Your task to perform on an android device: Set the phone to "Do not disturb". Image 0: 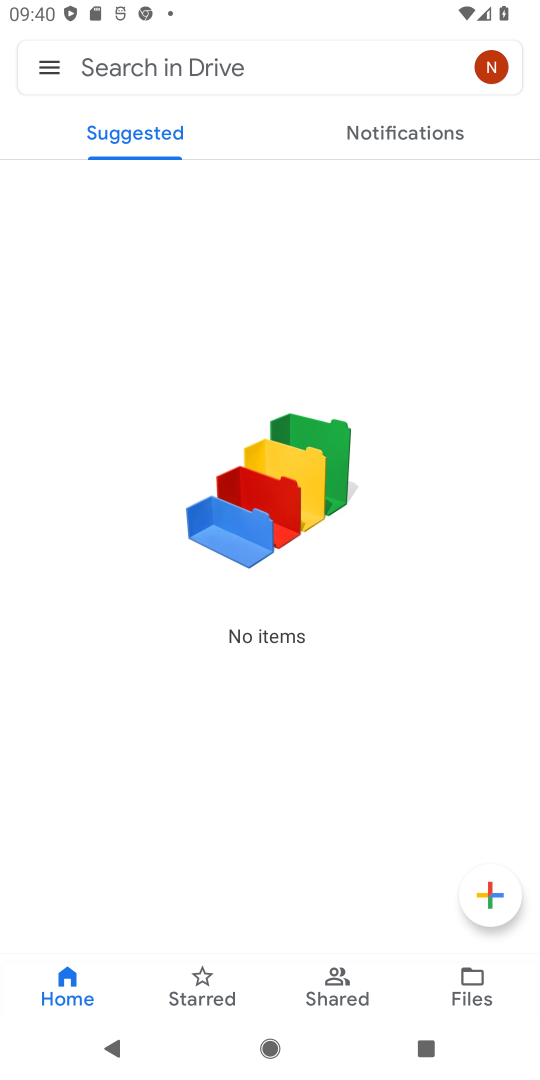
Step 0: press home button
Your task to perform on an android device: Set the phone to "Do not disturb". Image 1: 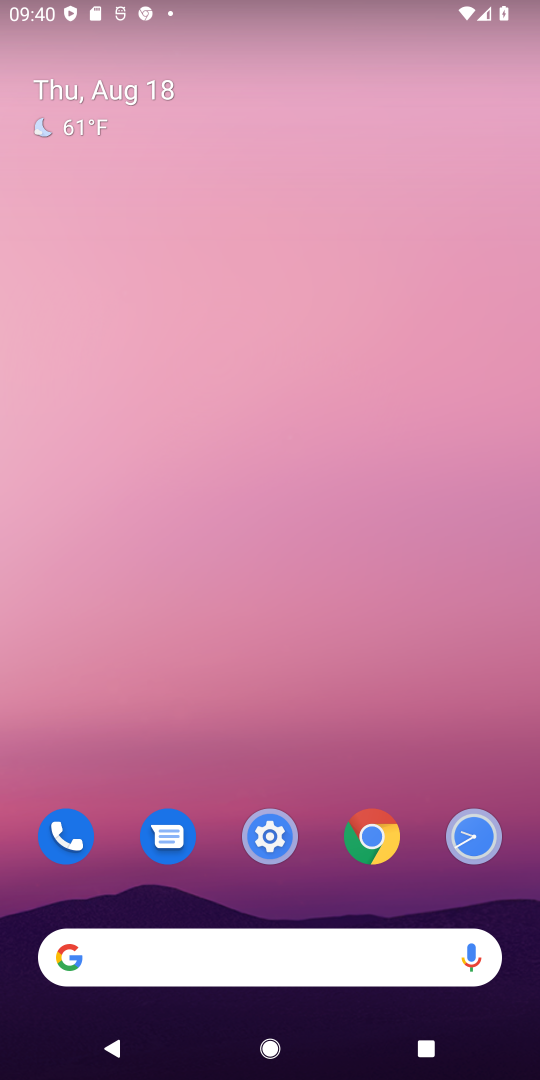
Step 1: drag from (414, 12) to (226, 380)
Your task to perform on an android device: Set the phone to "Do not disturb". Image 2: 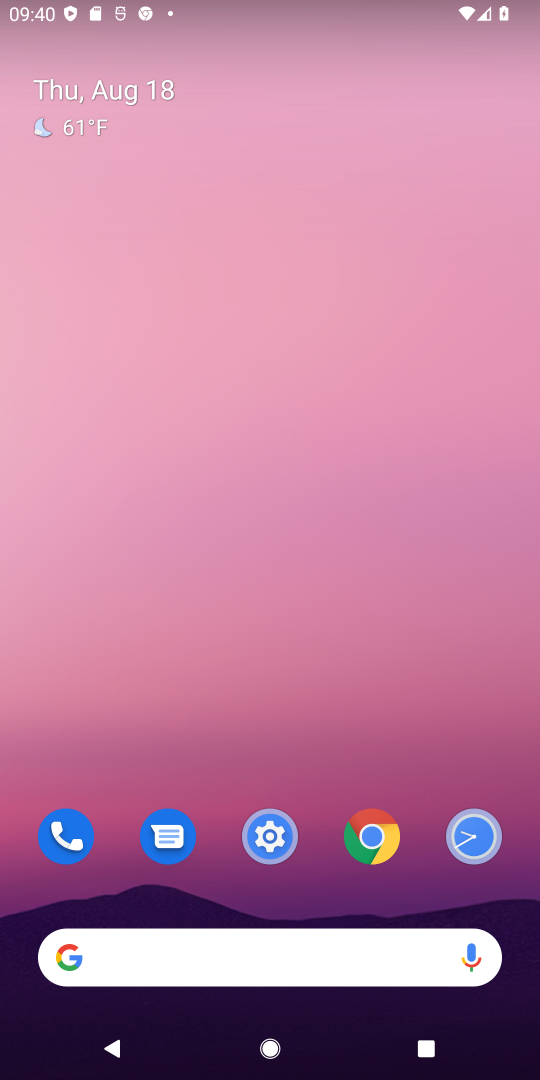
Step 2: drag from (411, 0) to (360, 533)
Your task to perform on an android device: Set the phone to "Do not disturb". Image 3: 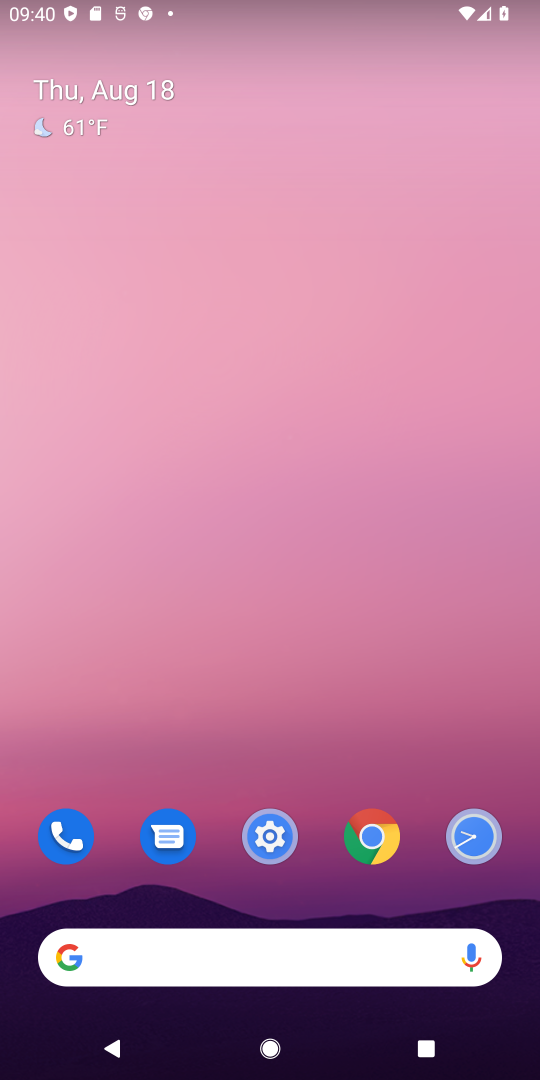
Step 3: drag from (380, 8) to (214, 773)
Your task to perform on an android device: Set the phone to "Do not disturb". Image 4: 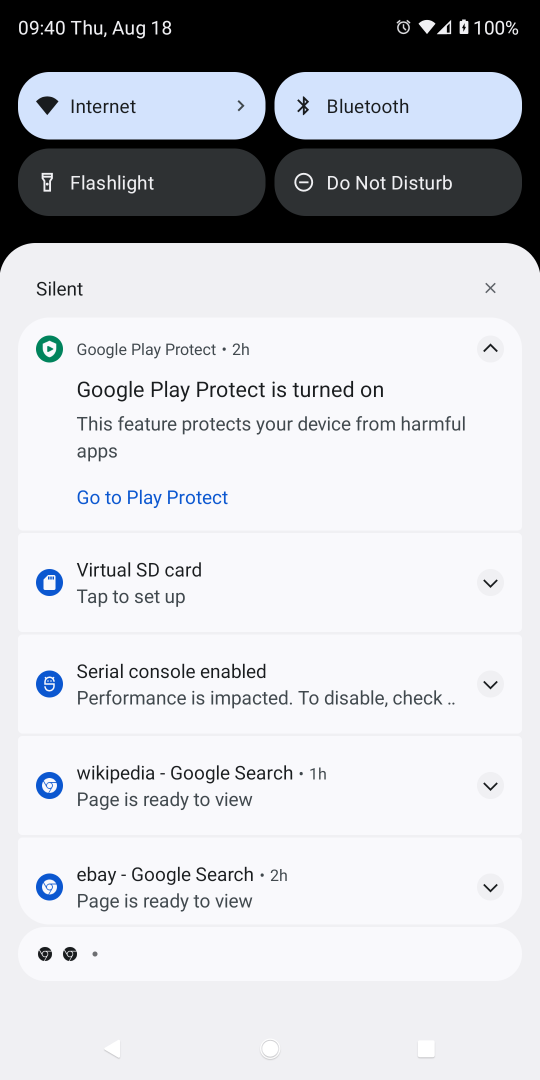
Step 4: click (414, 179)
Your task to perform on an android device: Set the phone to "Do not disturb". Image 5: 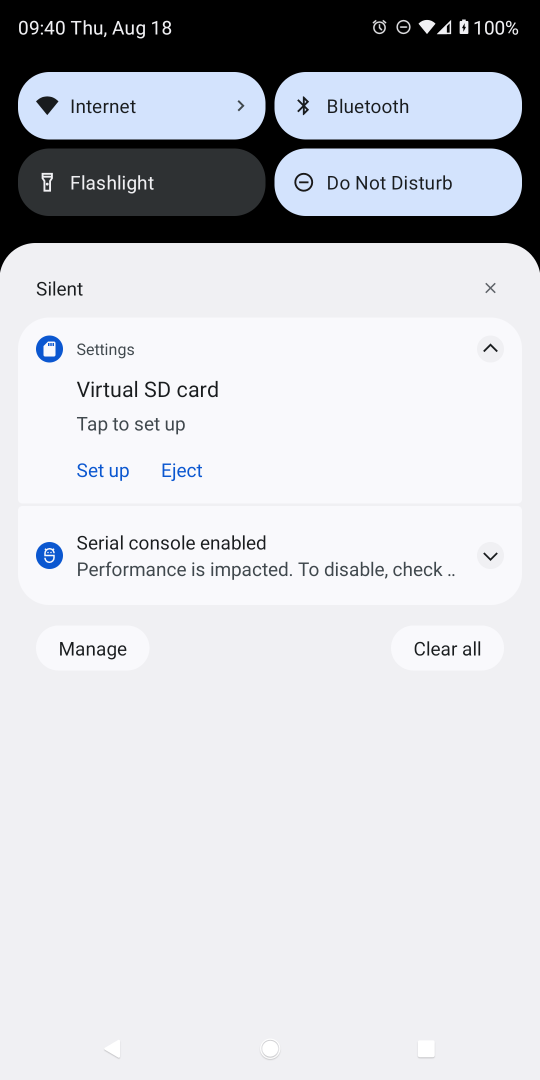
Step 5: task complete